Your task to perform on an android device: open app "Reddit" (install if not already installed) Image 0: 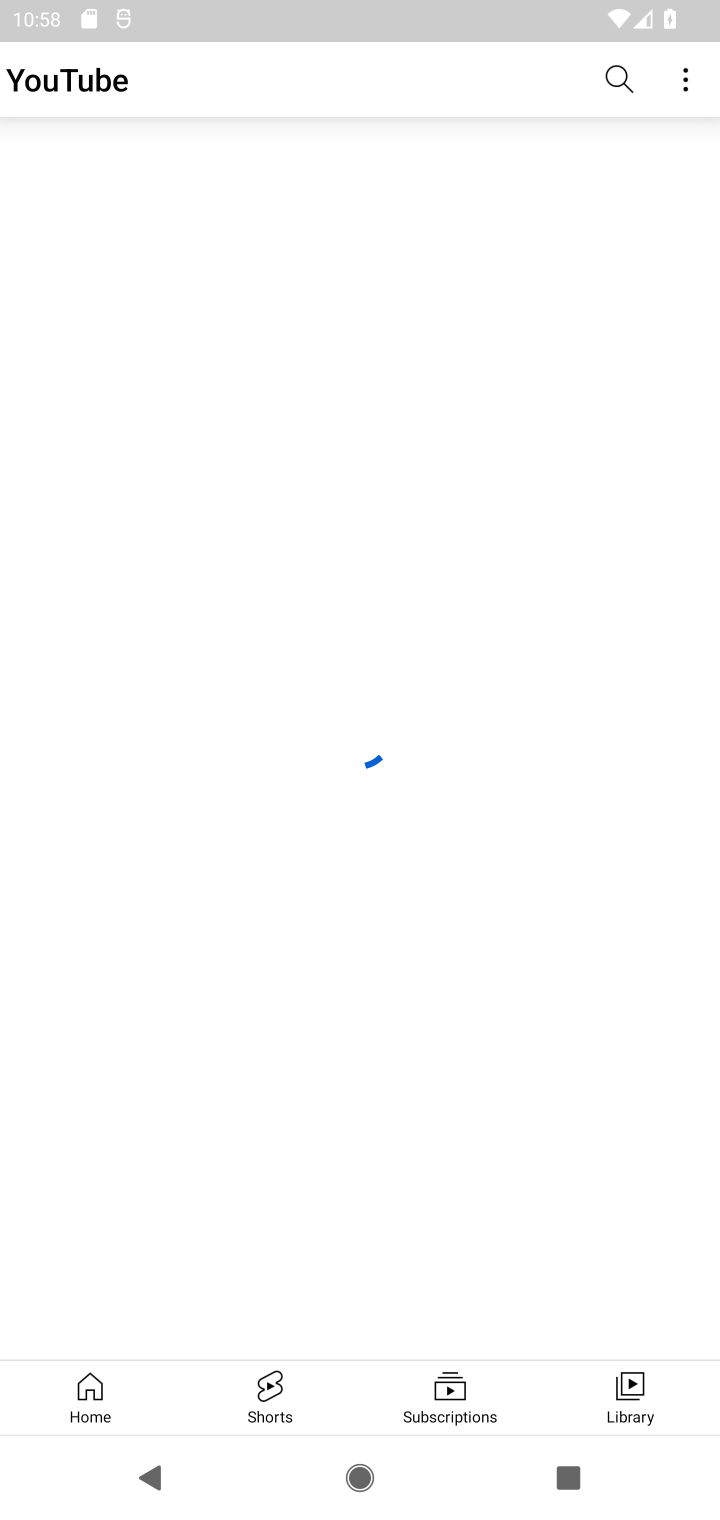
Step 0: press home button
Your task to perform on an android device: open app "Reddit" (install if not already installed) Image 1: 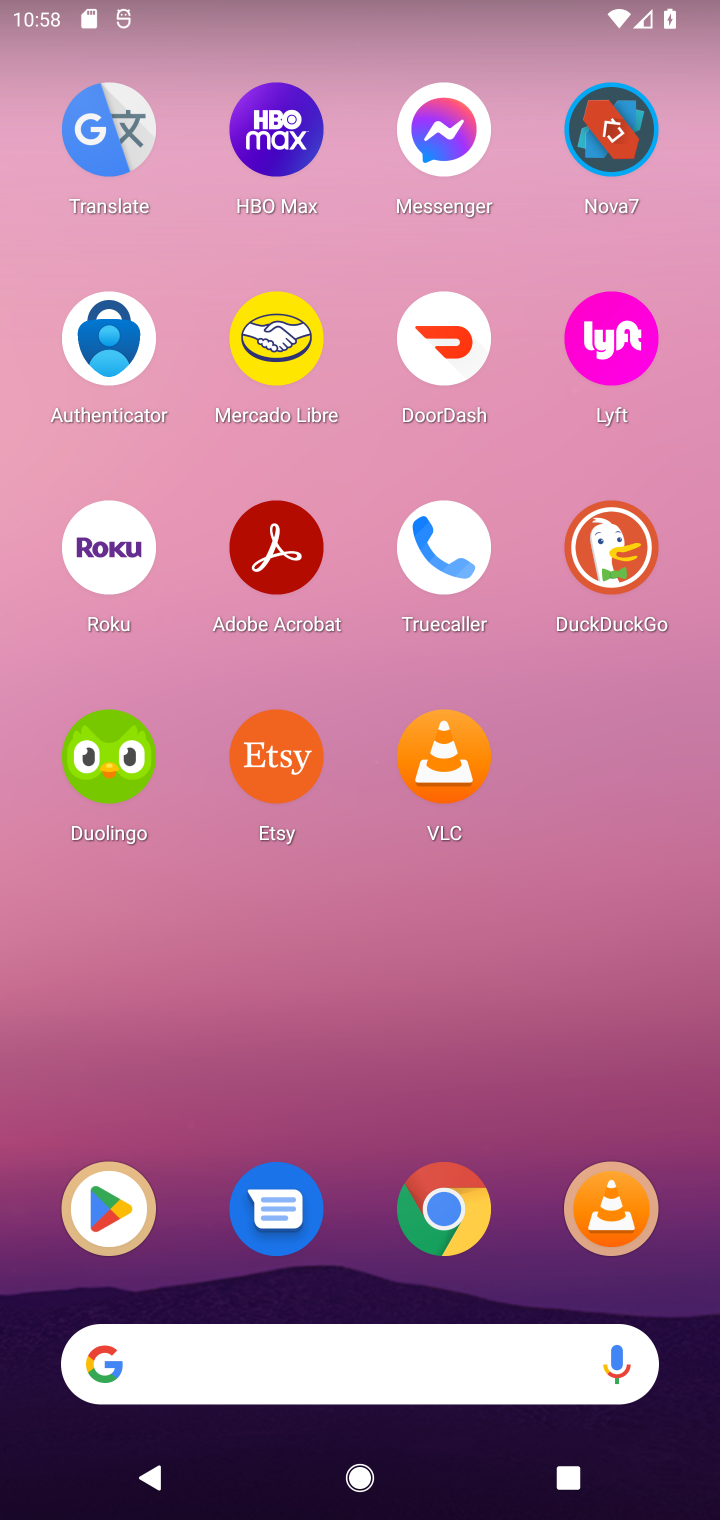
Step 1: drag from (542, 402) to (506, 10)
Your task to perform on an android device: open app "Reddit" (install if not already installed) Image 2: 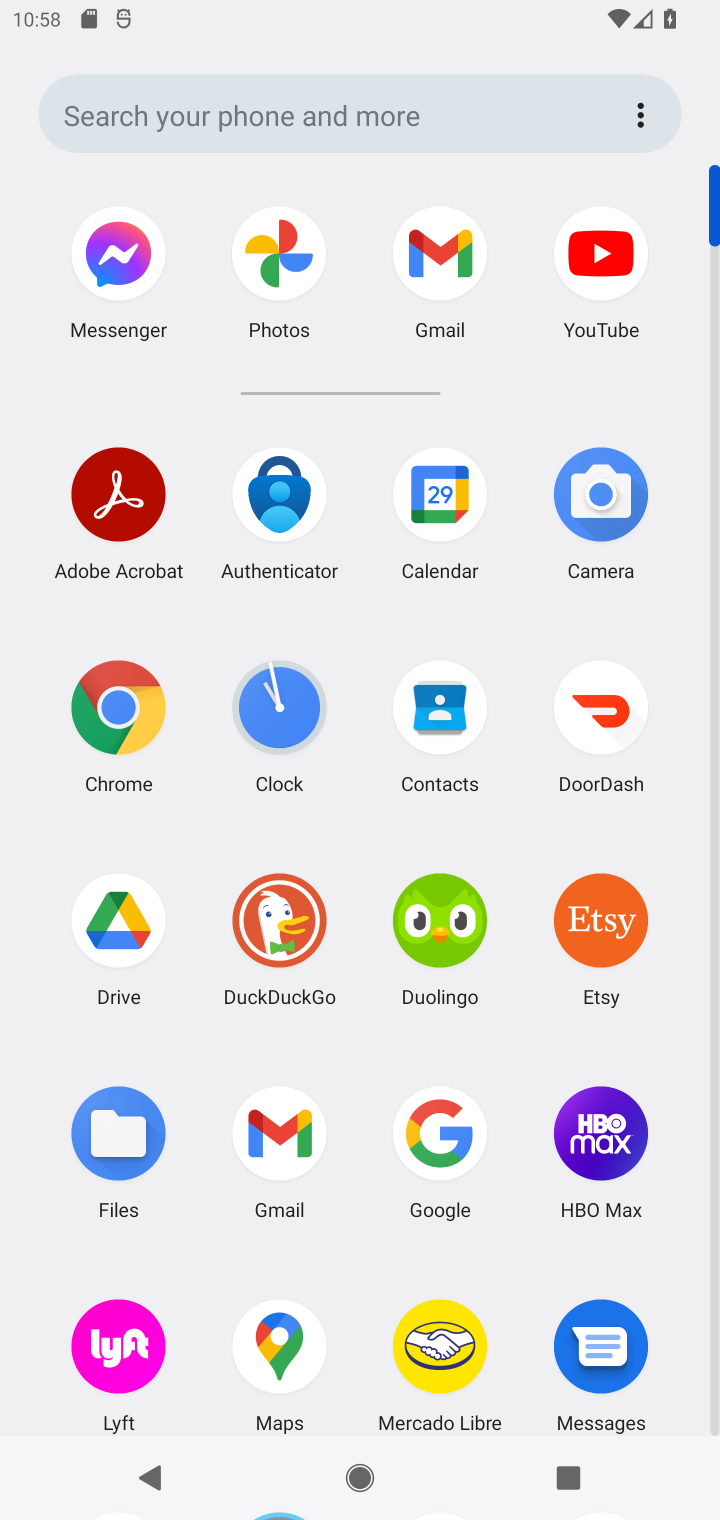
Step 2: drag from (381, 1257) to (380, 510)
Your task to perform on an android device: open app "Reddit" (install if not already installed) Image 3: 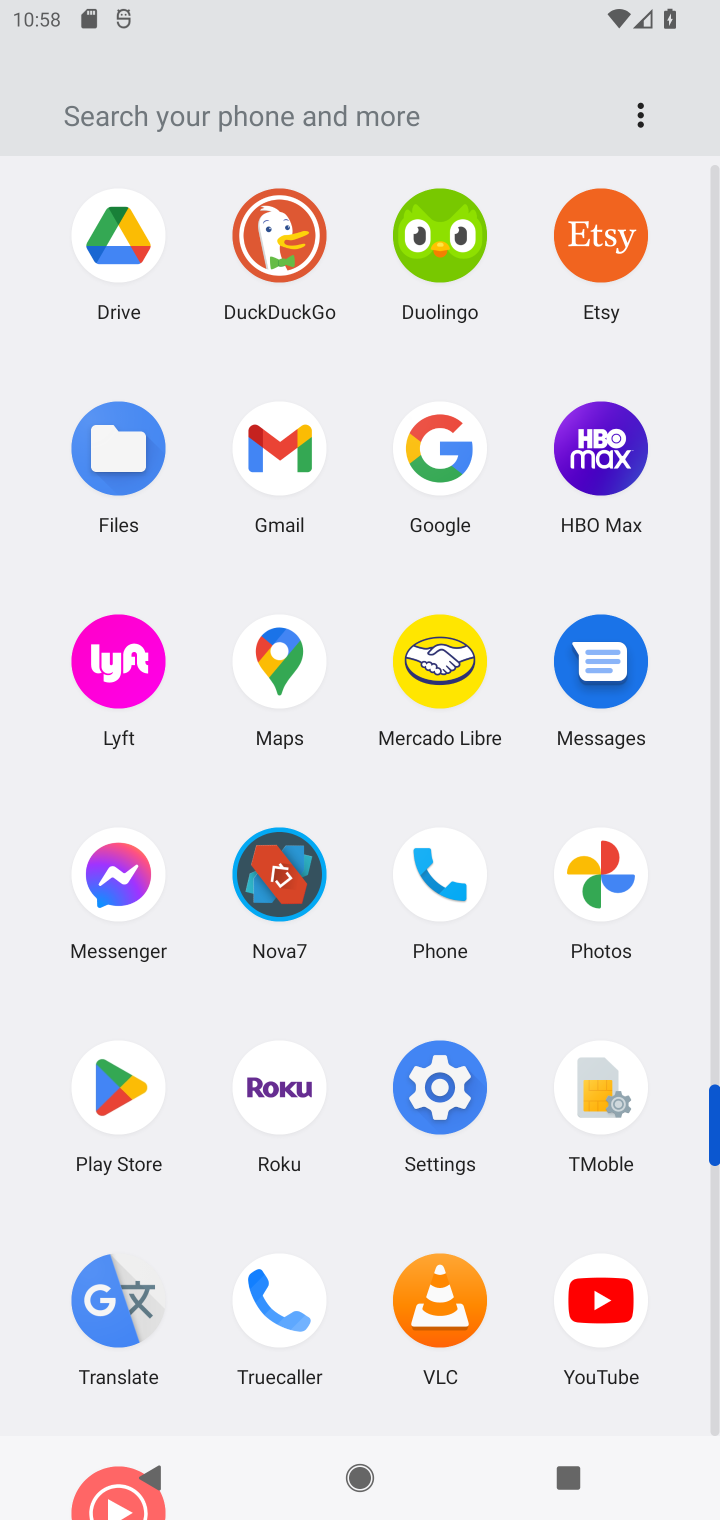
Step 3: click (108, 1087)
Your task to perform on an android device: open app "Reddit" (install if not already installed) Image 4: 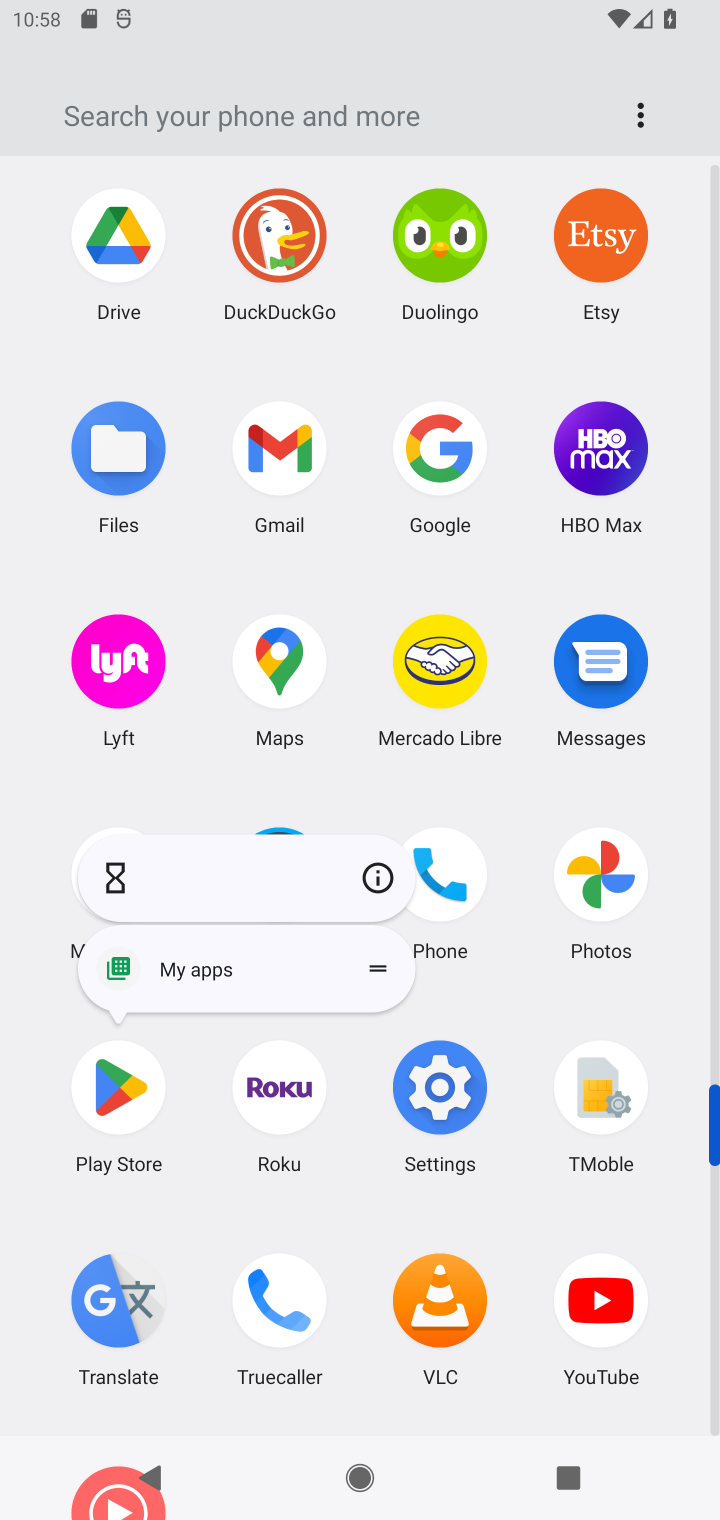
Step 4: click (108, 1083)
Your task to perform on an android device: open app "Reddit" (install if not already installed) Image 5: 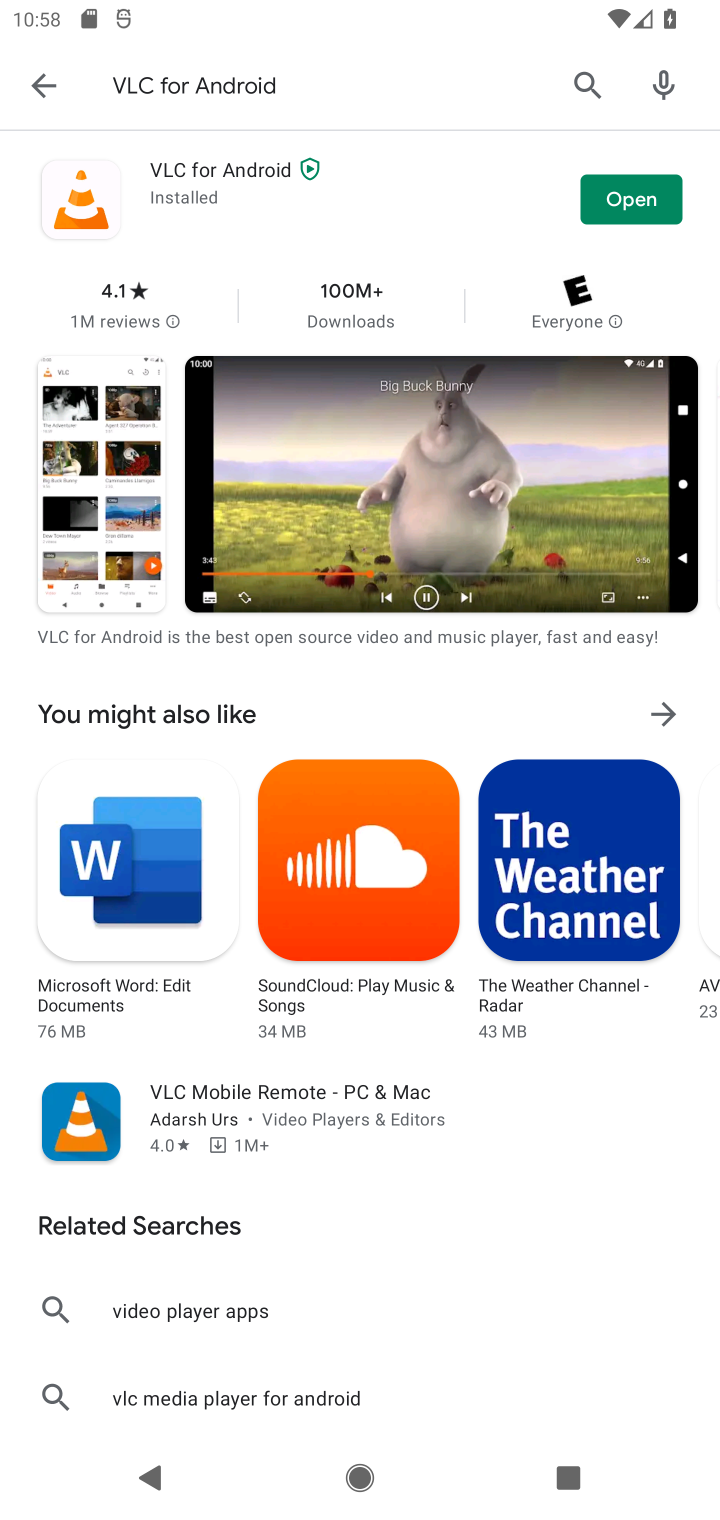
Step 5: click (392, 73)
Your task to perform on an android device: open app "Reddit" (install if not already installed) Image 6: 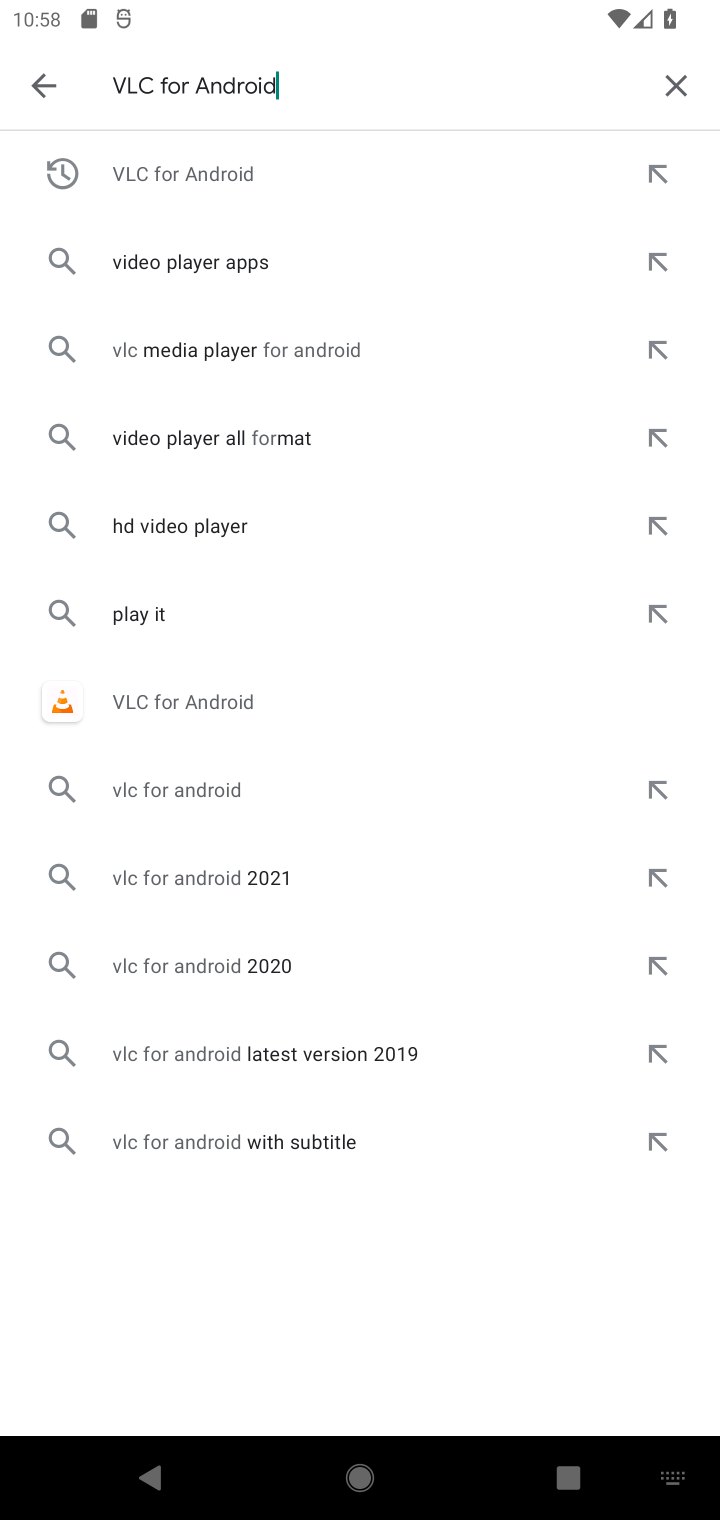
Step 6: click (676, 72)
Your task to perform on an android device: open app "Reddit" (install if not already installed) Image 7: 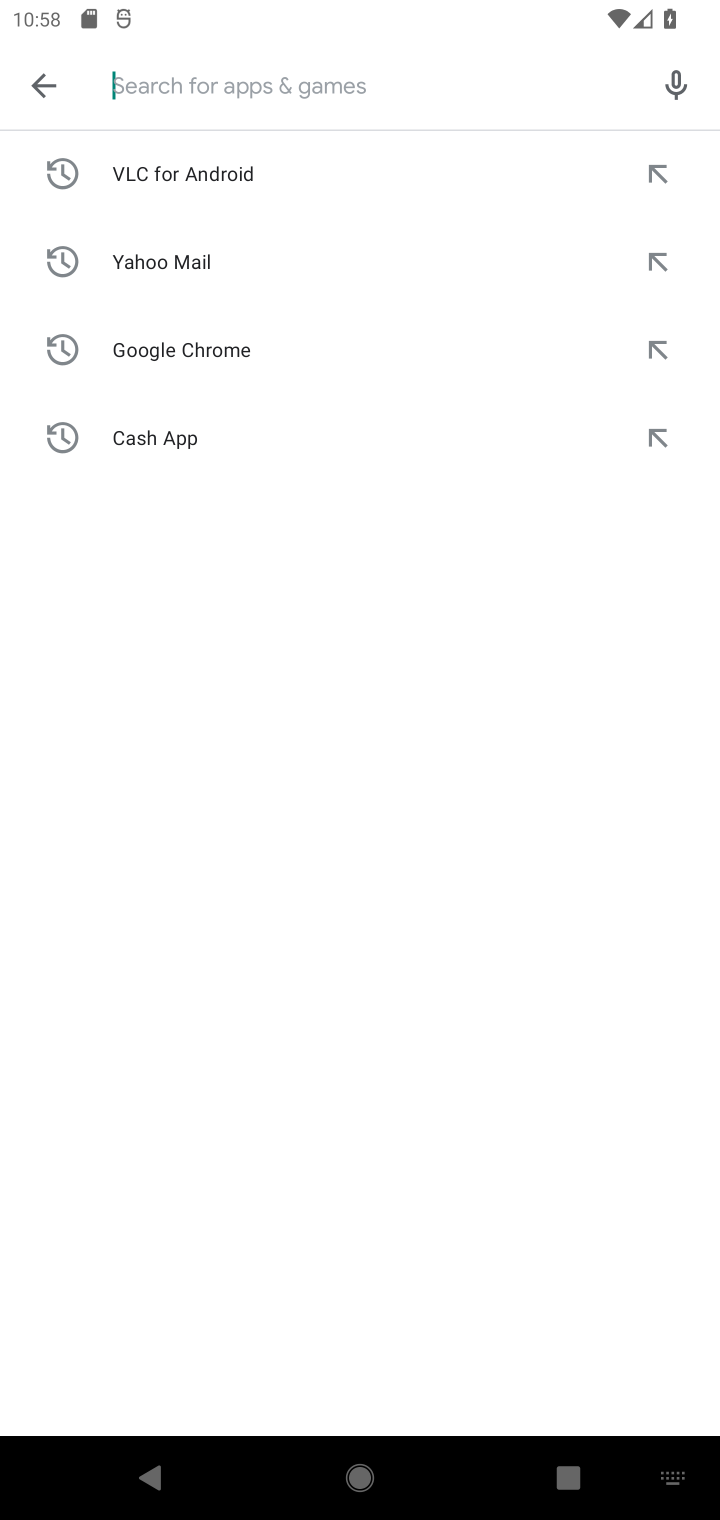
Step 7: type "Reddit"
Your task to perform on an android device: open app "Reddit" (install if not already installed) Image 8: 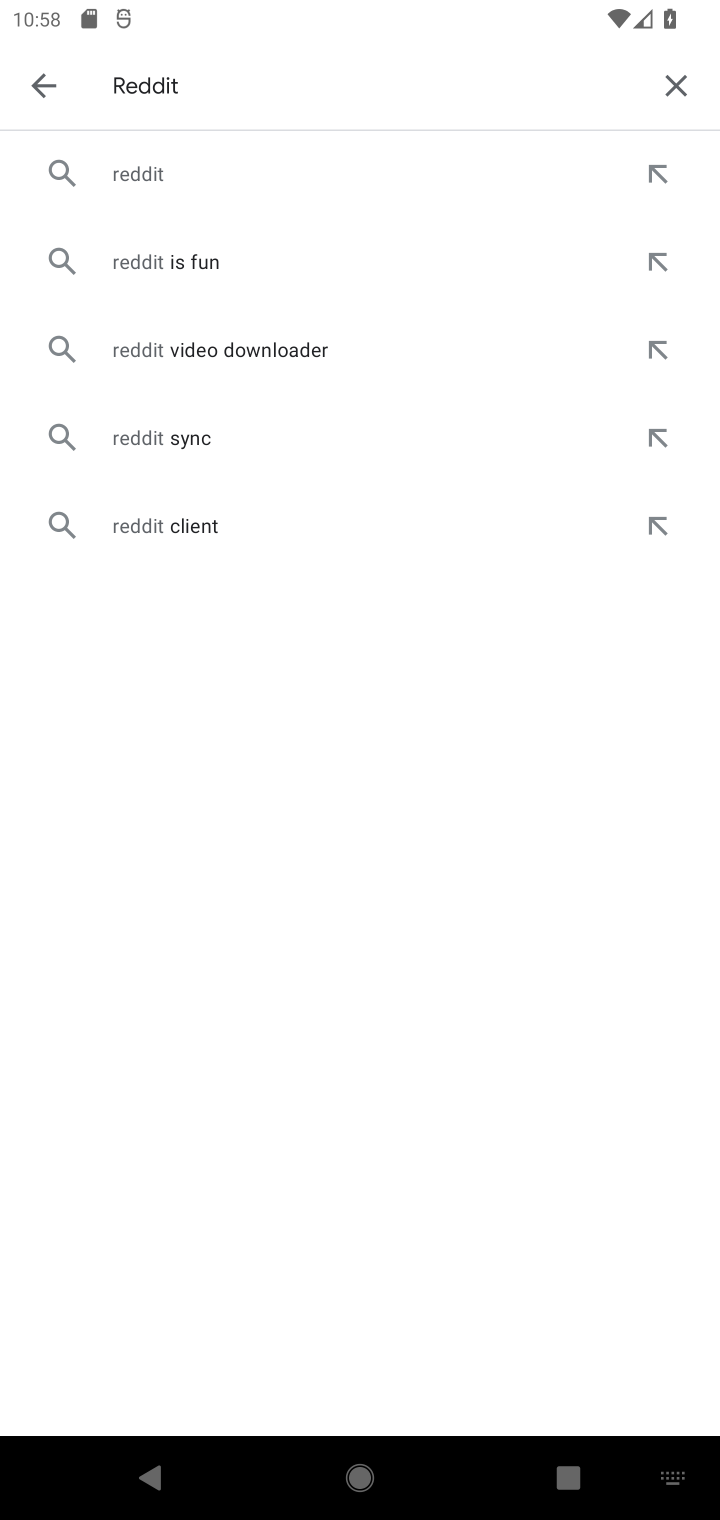
Step 8: press enter
Your task to perform on an android device: open app "Reddit" (install if not already installed) Image 9: 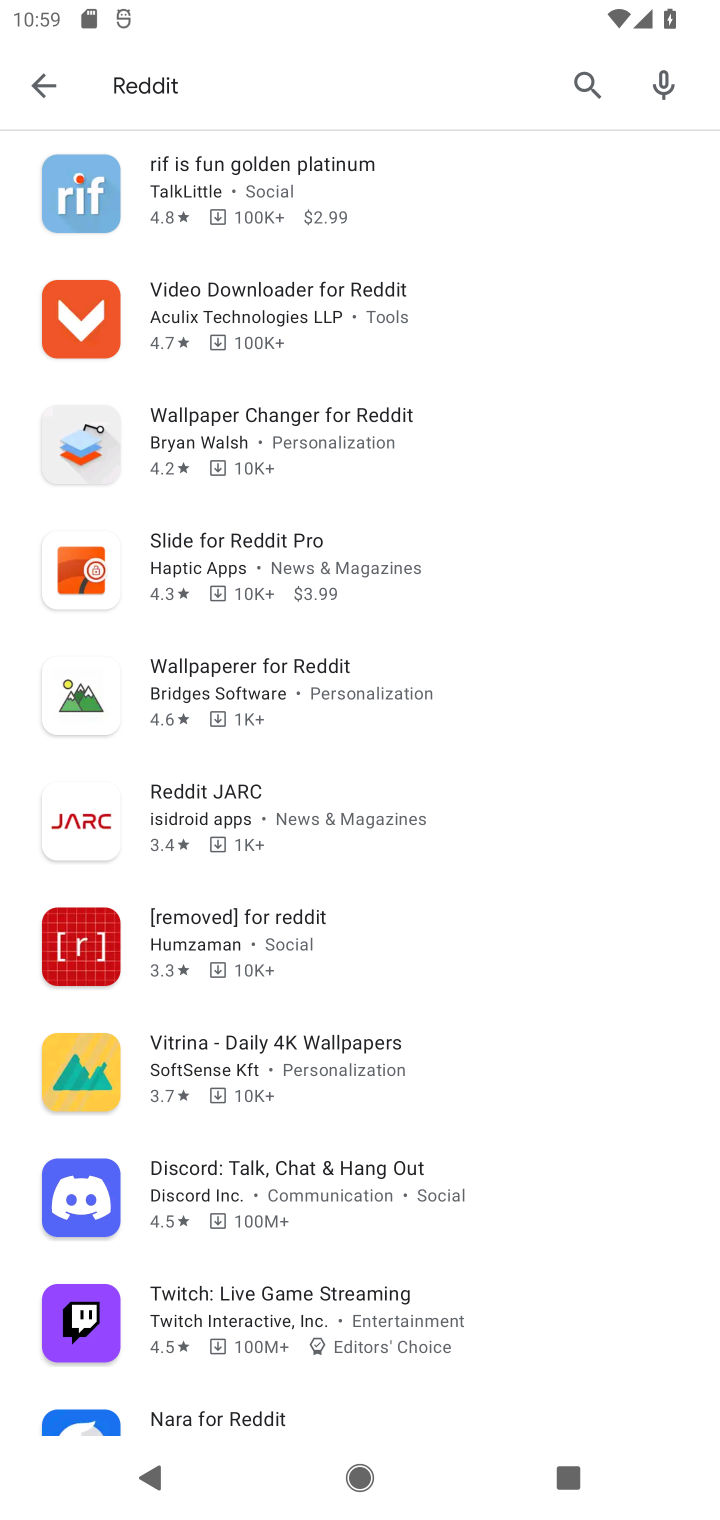
Step 9: task complete